Your task to perform on an android device: Open CNN.com Image 0: 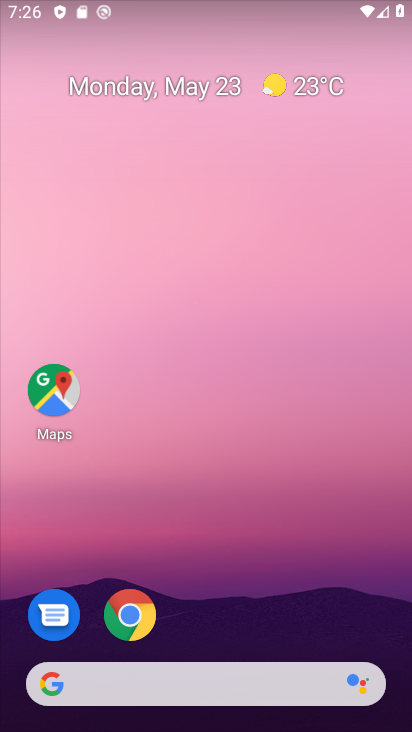
Step 0: click (130, 615)
Your task to perform on an android device: Open CNN.com Image 1: 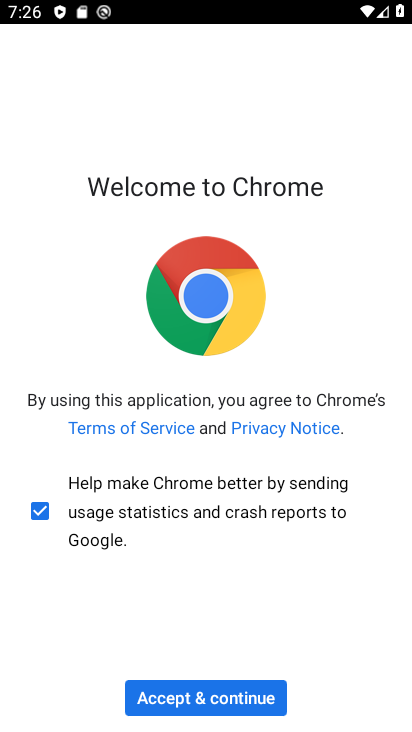
Step 1: click (191, 695)
Your task to perform on an android device: Open CNN.com Image 2: 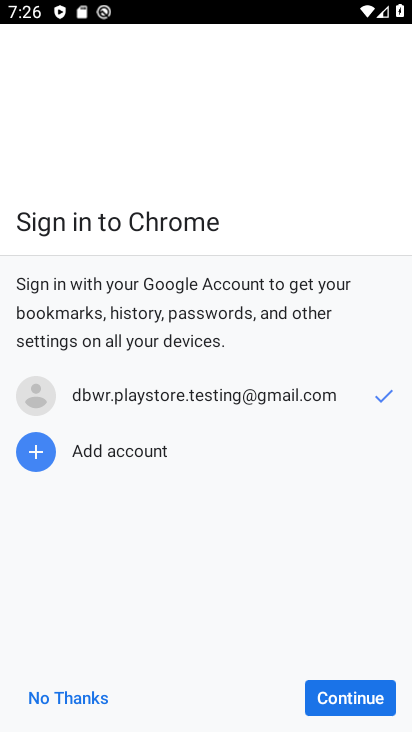
Step 2: click (343, 698)
Your task to perform on an android device: Open CNN.com Image 3: 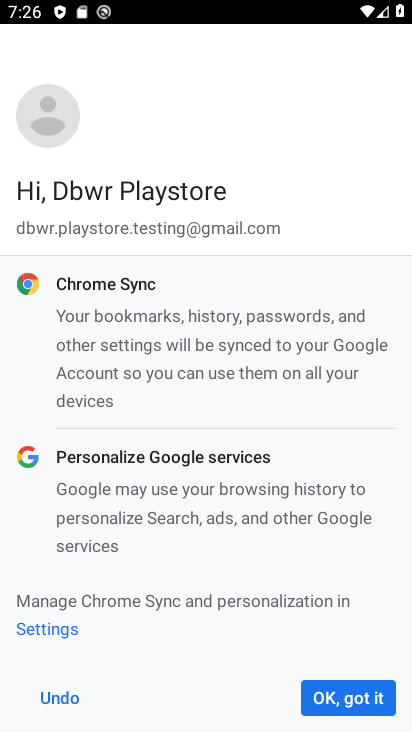
Step 3: click (343, 698)
Your task to perform on an android device: Open CNN.com Image 4: 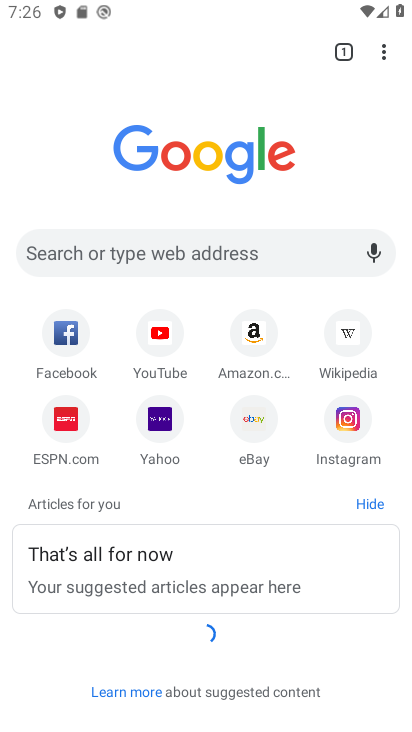
Step 4: click (216, 250)
Your task to perform on an android device: Open CNN.com Image 5: 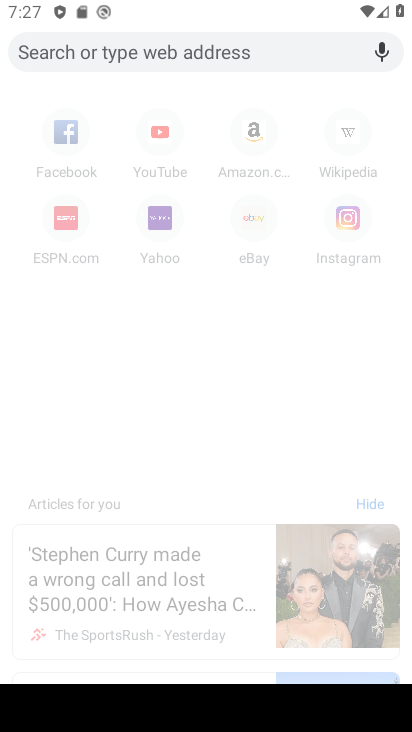
Step 5: type "CNN.com"
Your task to perform on an android device: Open CNN.com Image 6: 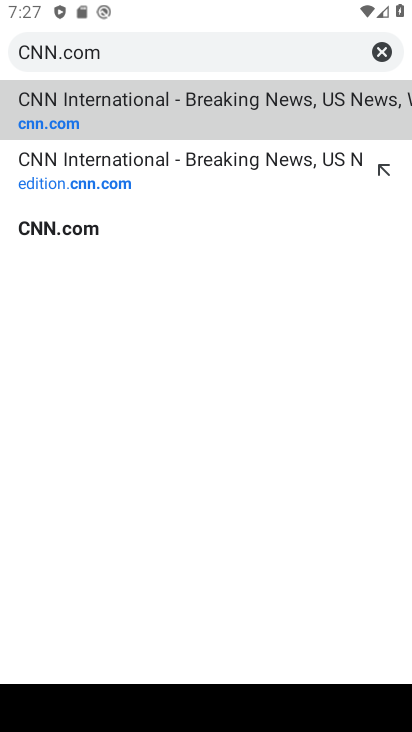
Step 6: click (63, 228)
Your task to perform on an android device: Open CNN.com Image 7: 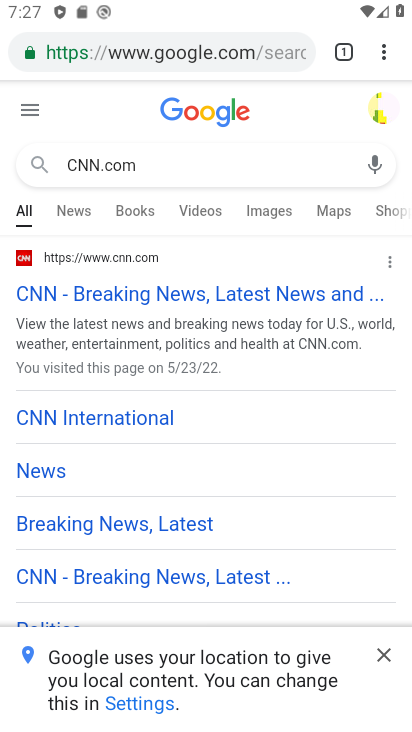
Step 7: click (201, 299)
Your task to perform on an android device: Open CNN.com Image 8: 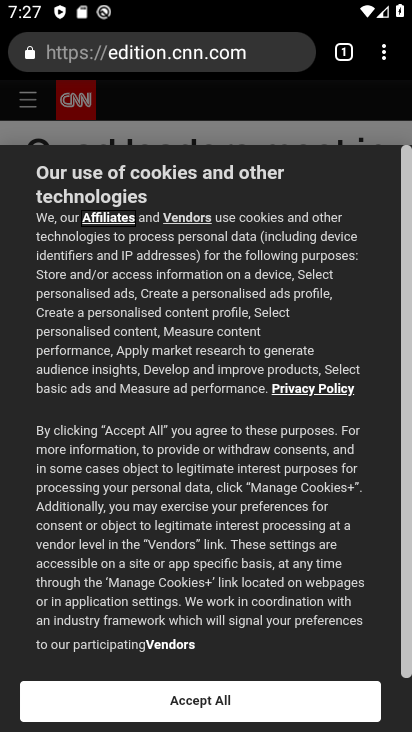
Step 8: task complete